Your task to perform on an android device: What's the weather going to be this weekend? Image 0: 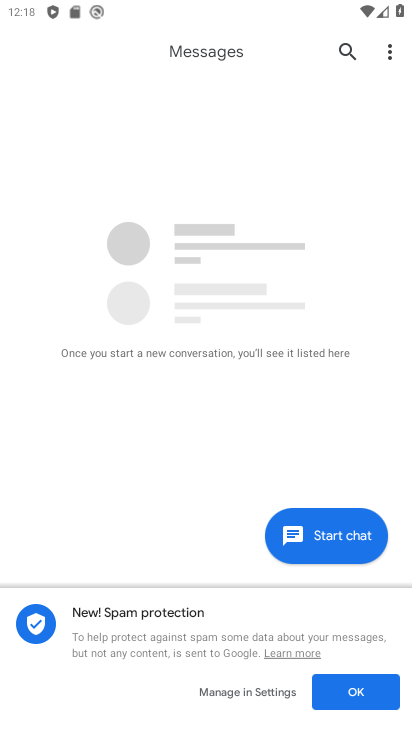
Step 0: press home button
Your task to perform on an android device: What's the weather going to be this weekend? Image 1: 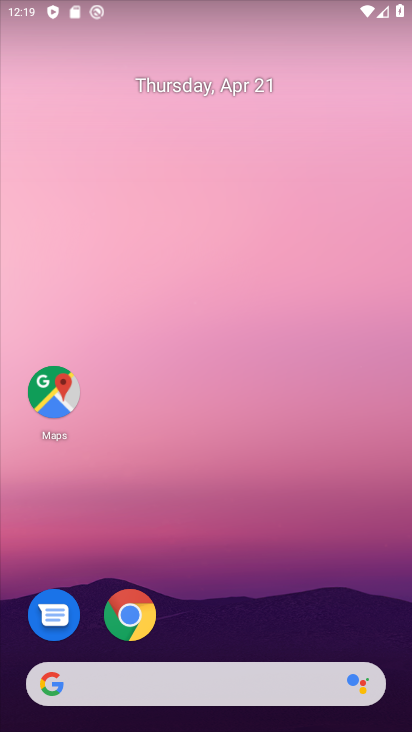
Step 1: click (131, 678)
Your task to perform on an android device: What's the weather going to be this weekend? Image 2: 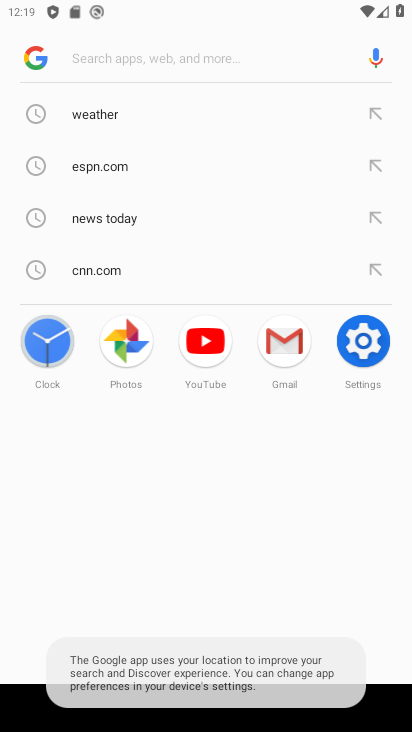
Step 2: type "What's the weather going to be this weekend?"
Your task to perform on an android device: What's the weather going to be this weekend? Image 3: 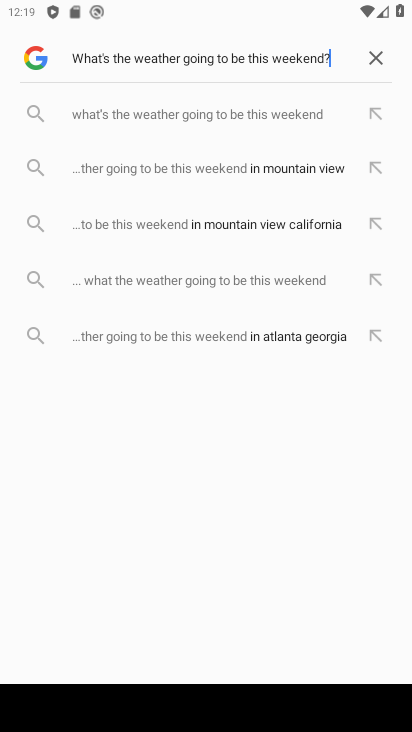
Step 3: click (158, 112)
Your task to perform on an android device: What's the weather going to be this weekend? Image 4: 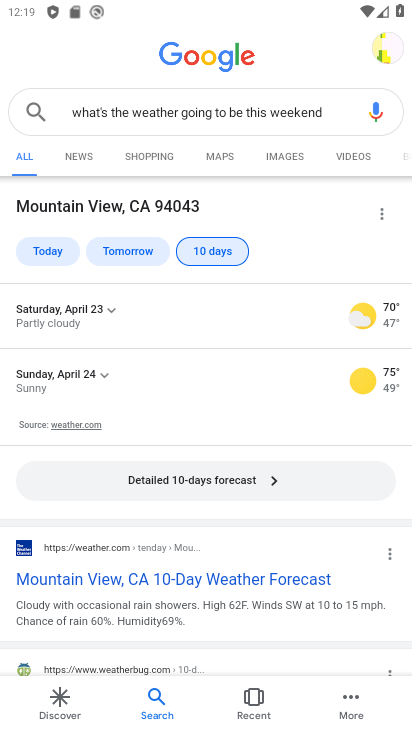
Step 4: click (160, 314)
Your task to perform on an android device: What's the weather going to be this weekend? Image 5: 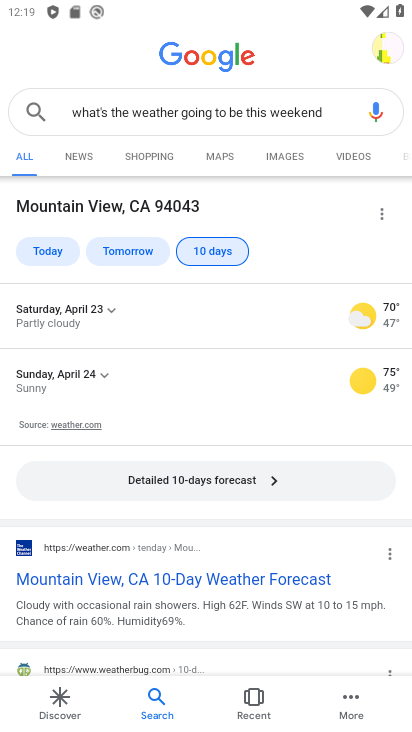
Step 5: click (233, 465)
Your task to perform on an android device: What's the weather going to be this weekend? Image 6: 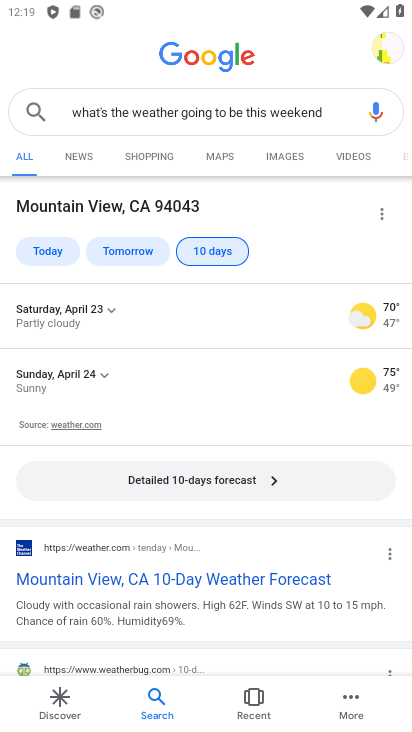
Step 6: click (209, 480)
Your task to perform on an android device: What's the weather going to be this weekend? Image 7: 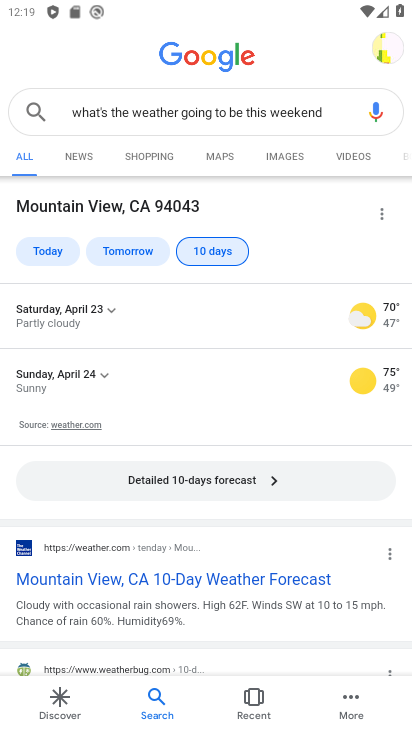
Step 7: task complete